Your task to perform on an android device: toggle wifi Image 0: 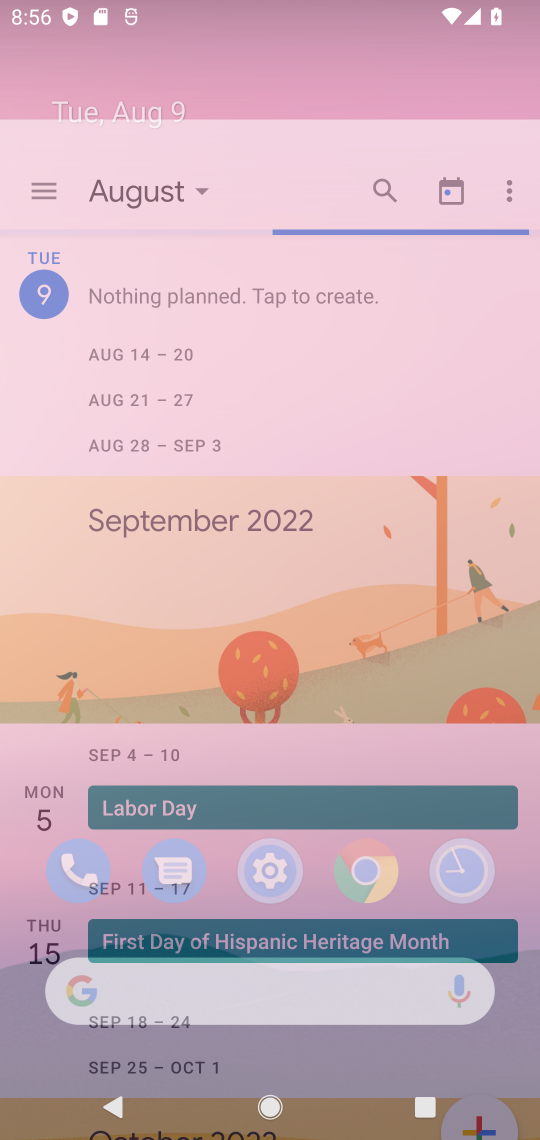
Step 0: press home button
Your task to perform on an android device: toggle wifi Image 1: 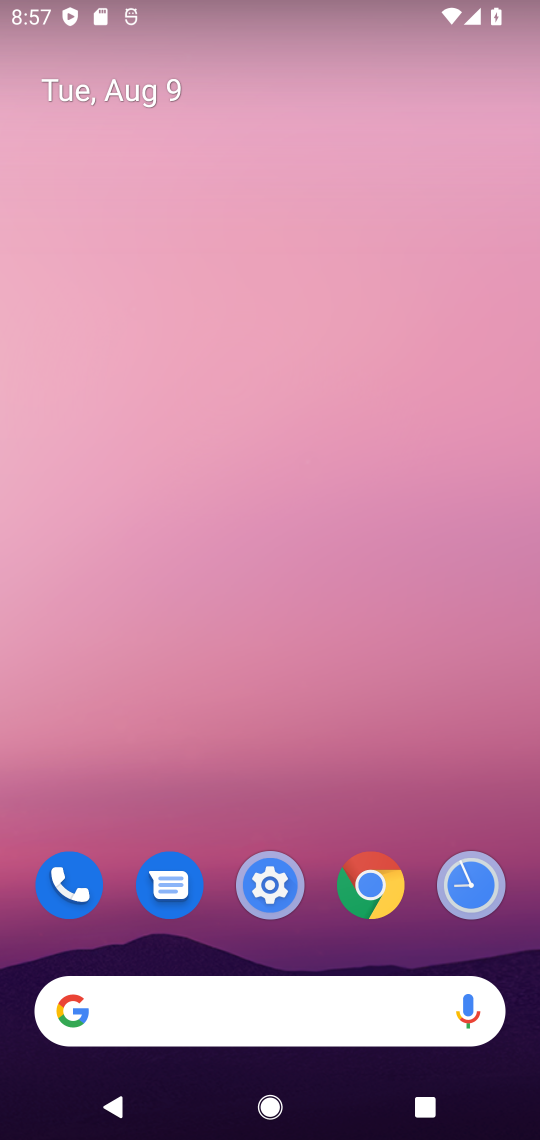
Step 1: drag from (271, 802) to (249, 55)
Your task to perform on an android device: toggle wifi Image 2: 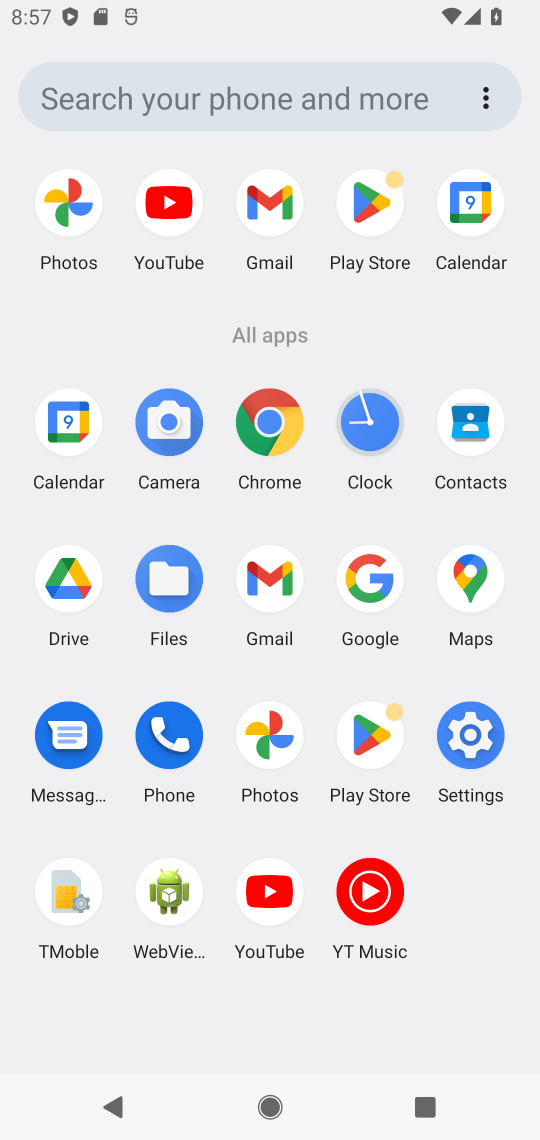
Step 2: click (465, 728)
Your task to perform on an android device: toggle wifi Image 3: 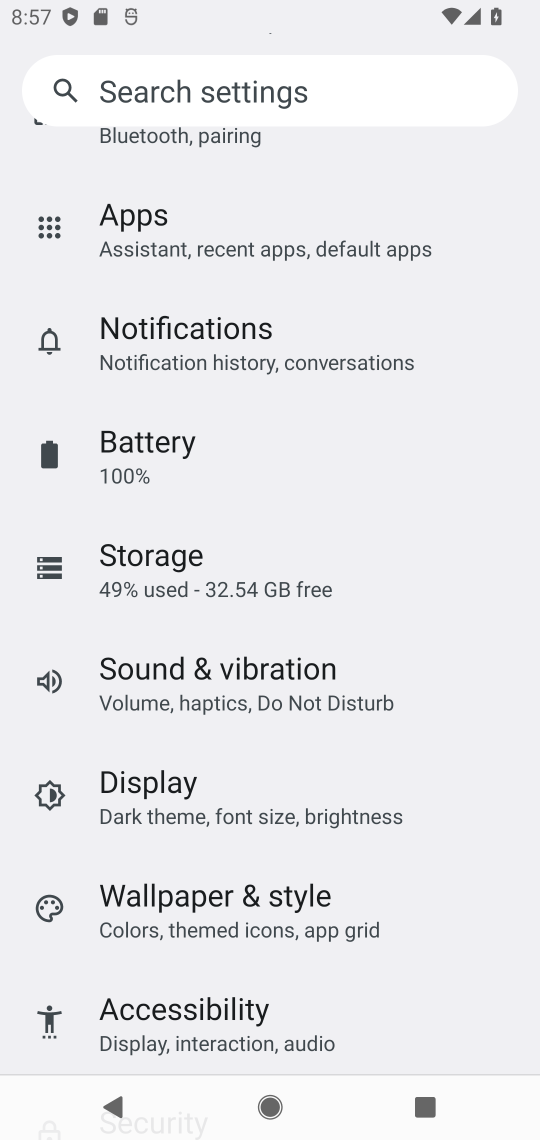
Step 3: drag from (230, 207) to (203, 952)
Your task to perform on an android device: toggle wifi Image 4: 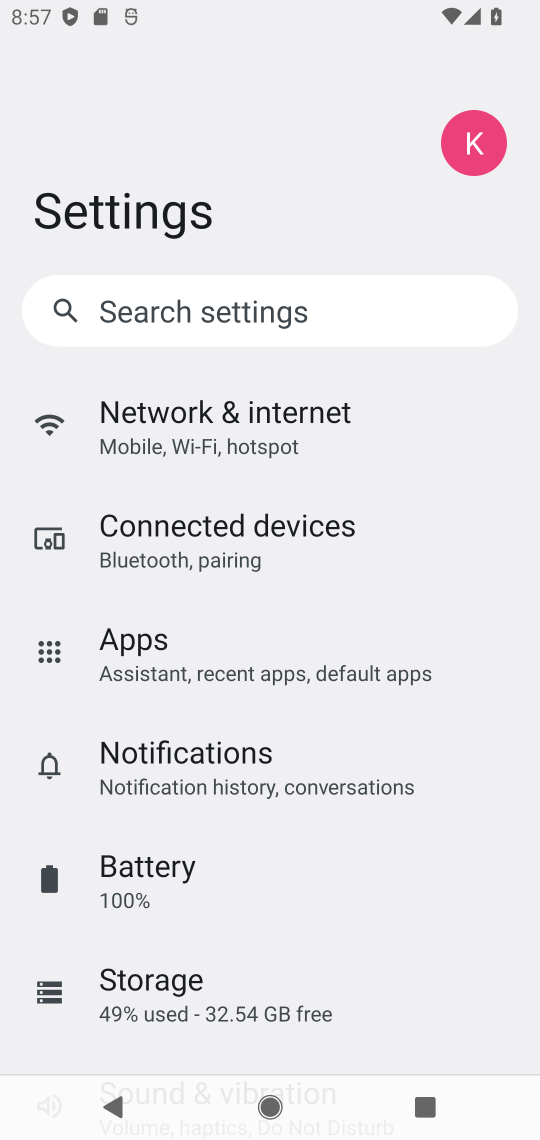
Step 4: click (294, 421)
Your task to perform on an android device: toggle wifi Image 5: 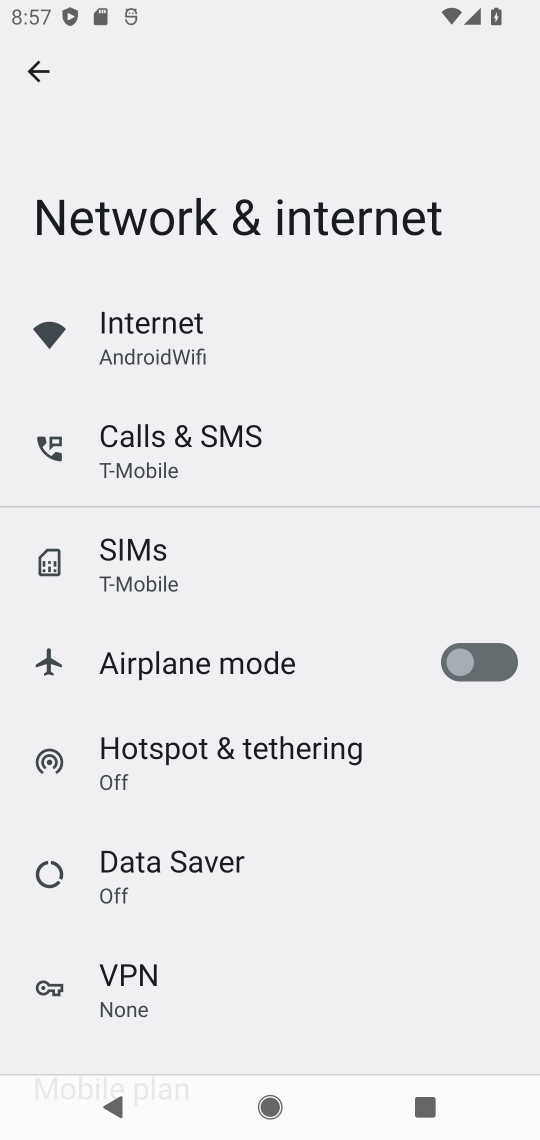
Step 5: click (221, 341)
Your task to perform on an android device: toggle wifi Image 6: 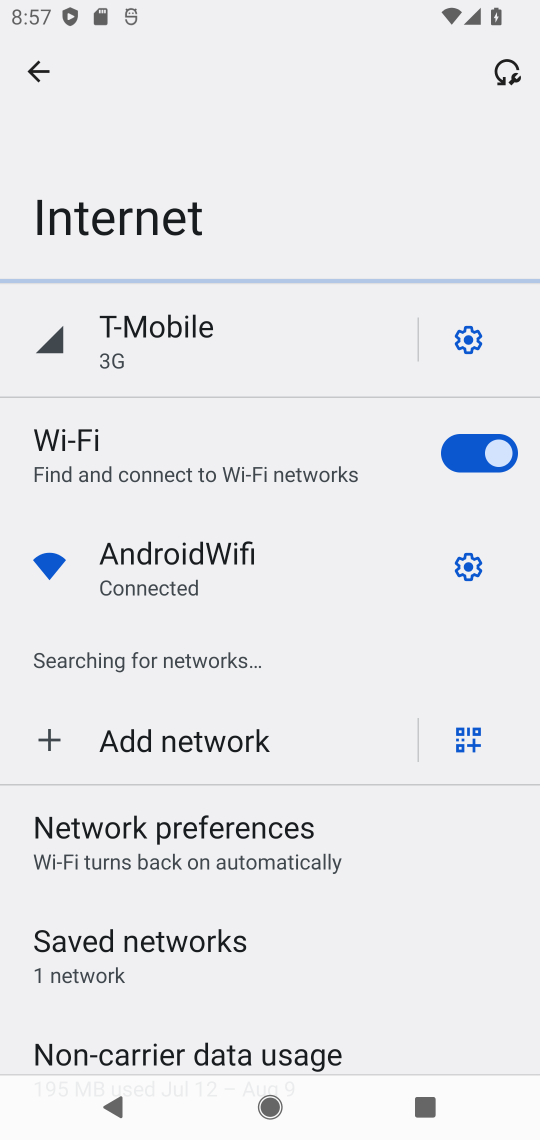
Step 6: click (470, 452)
Your task to perform on an android device: toggle wifi Image 7: 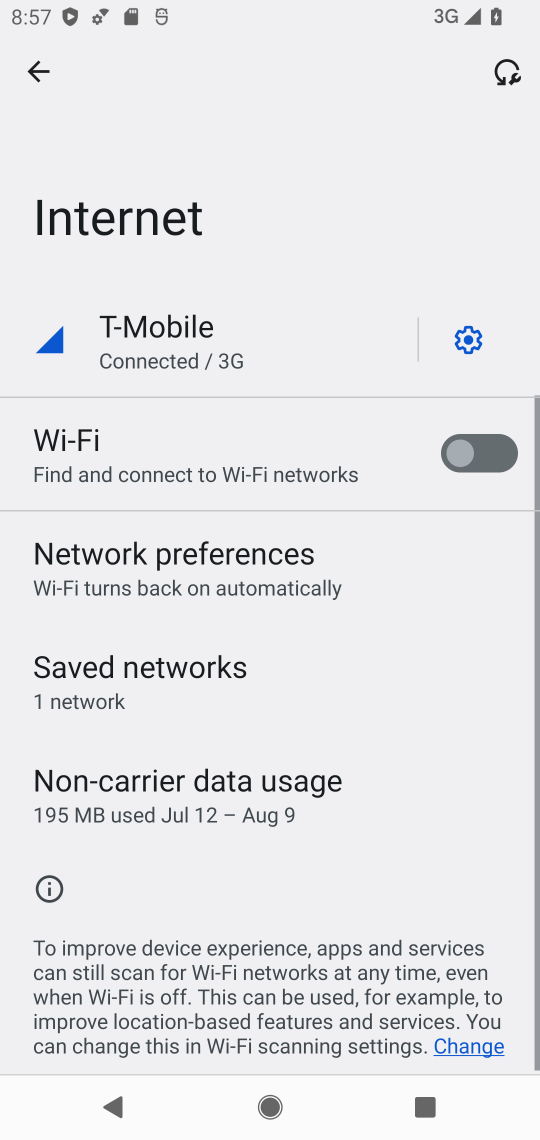
Step 7: task complete